Your task to perform on an android device: Open the map Image 0: 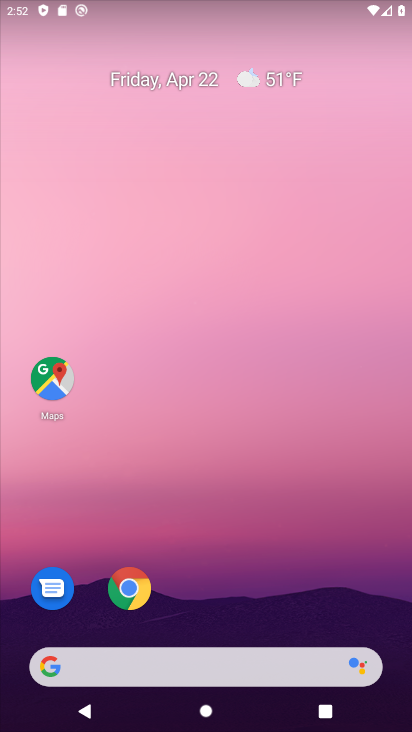
Step 0: drag from (363, 590) to (361, 194)
Your task to perform on an android device: Open the map Image 1: 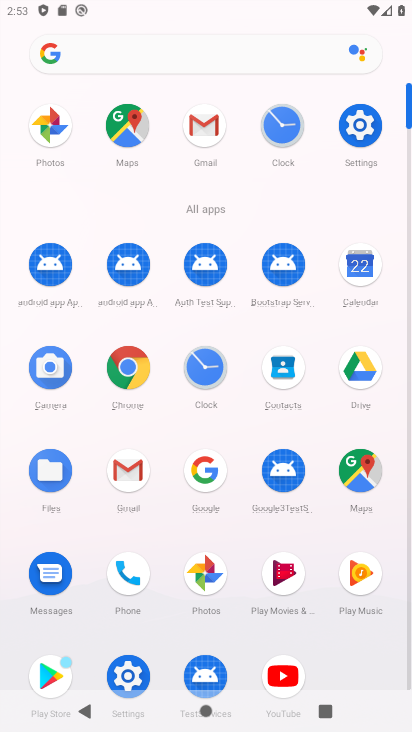
Step 1: click (351, 467)
Your task to perform on an android device: Open the map Image 2: 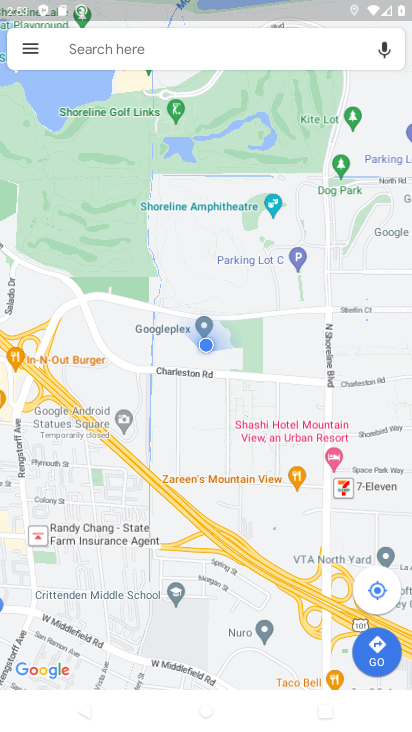
Step 2: task complete